Your task to perform on an android device: Go to notification settings Image 0: 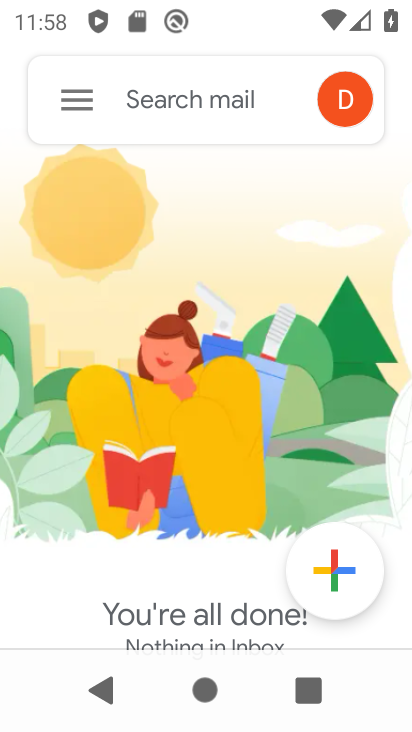
Step 0: click (77, 106)
Your task to perform on an android device: Go to notification settings Image 1: 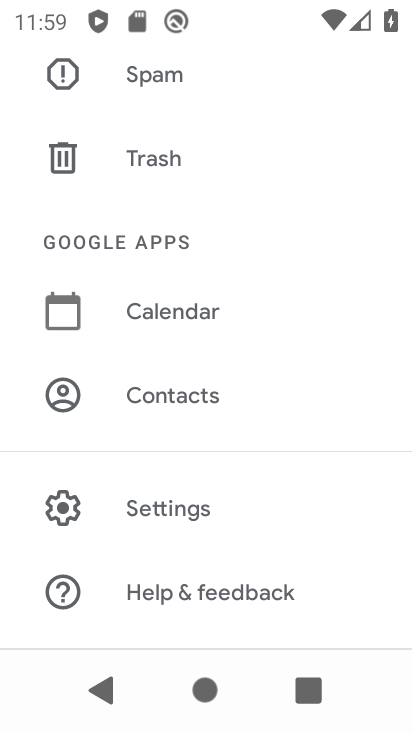
Step 1: press back button
Your task to perform on an android device: Go to notification settings Image 2: 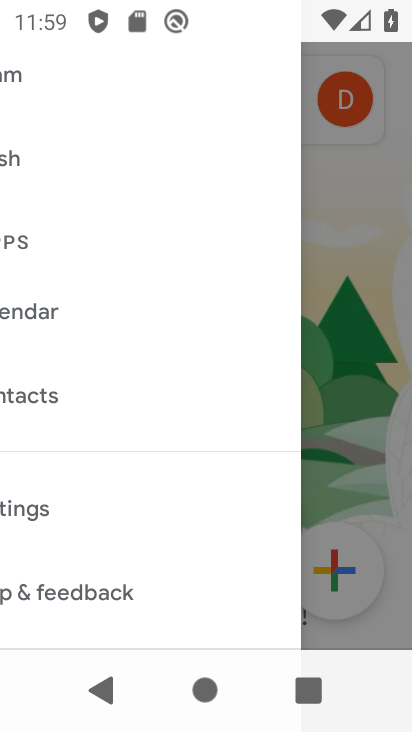
Step 2: press back button
Your task to perform on an android device: Go to notification settings Image 3: 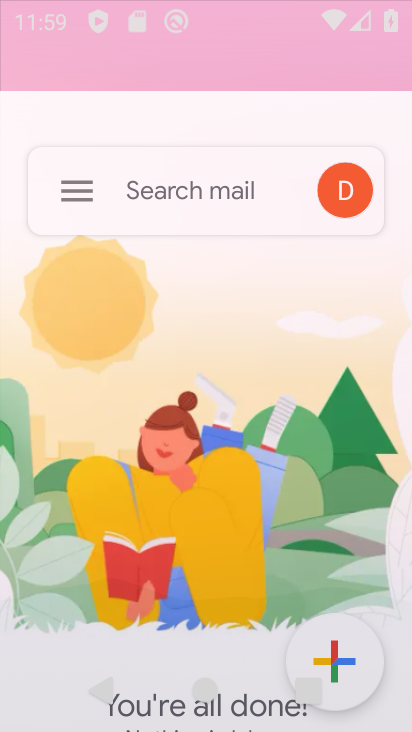
Step 3: press home button
Your task to perform on an android device: Go to notification settings Image 4: 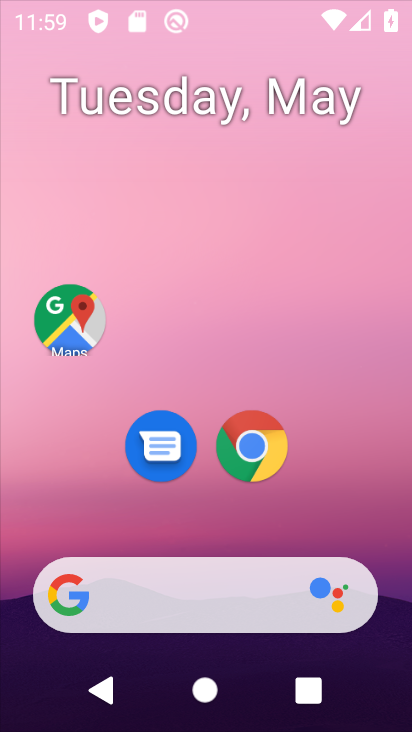
Step 4: press home button
Your task to perform on an android device: Go to notification settings Image 5: 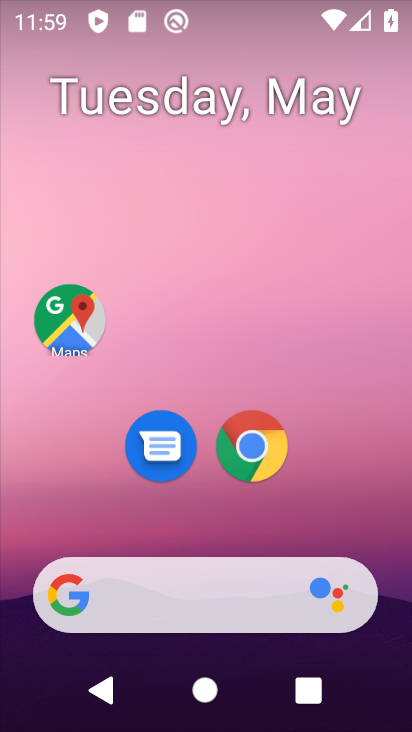
Step 5: drag from (272, 650) to (154, 143)
Your task to perform on an android device: Go to notification settings Image 6: 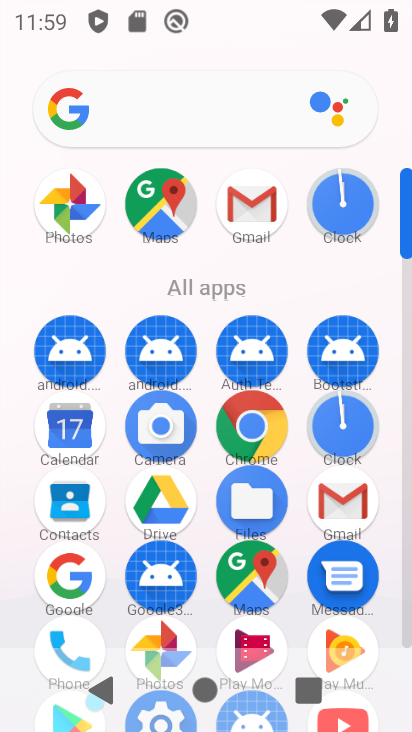
Step 6: drag from (259, 504) to (248, 125)
Your task to perform on an android device: Go to notification settings Image 7: 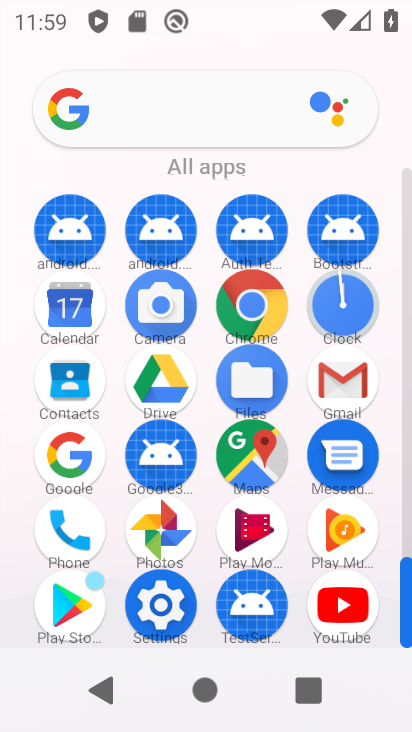
Step 7: drag from (291, 404) to (310, 57)
Your task to perform on an android device: Go to notification settings Image 8: 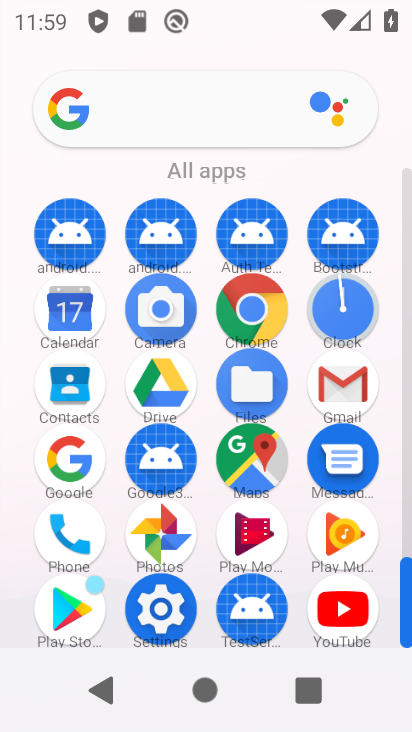
Step 8: click (157, 615)
Your task to perform on an android device: Go to notification settings Image 9: 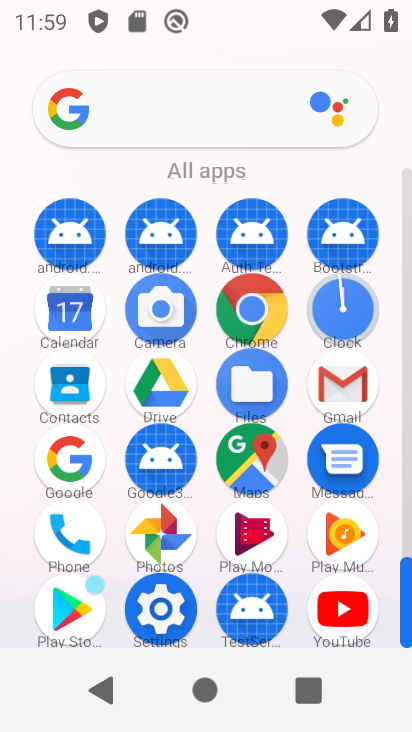
Step 9: click (162, 614)
Your task to perform on an android device: Go to notification settings Image 10: 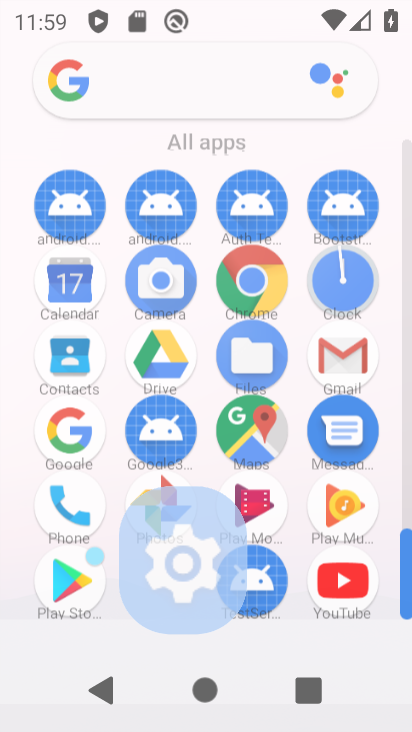
Step 10: click (169, 614)
Your task to perform on an android device: Go to notification settings Image 11: 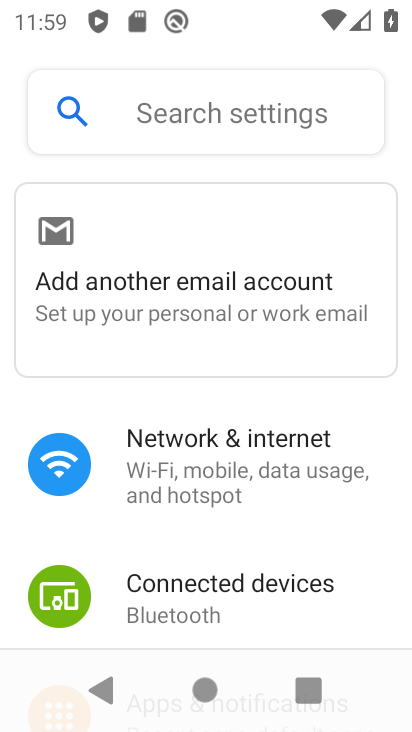
Step 11: drag from (243, 547) to (206, 68)
Your task to perform on an android device: Go to notification settings Image 12: 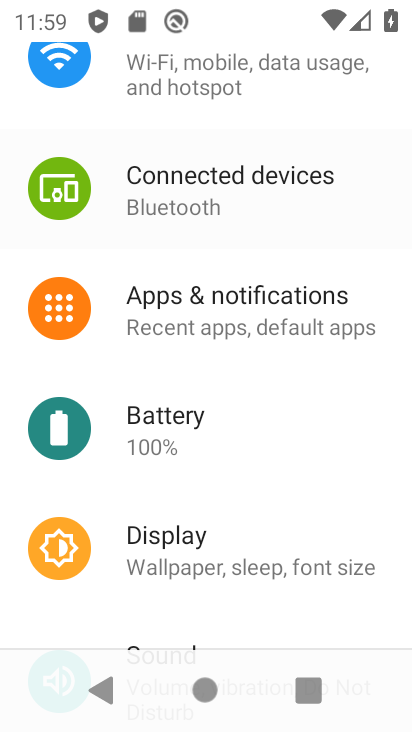
Step 12: drag from (251, 443) to (199, 118)
Your task to perform on an android device: Go to notification settings Image 13: 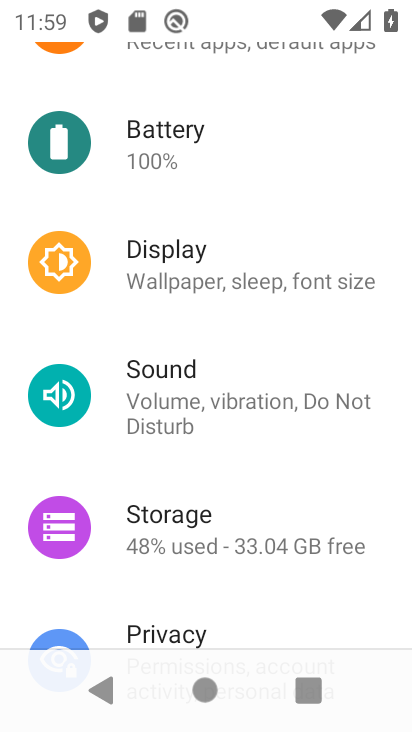
Step 13: drag from (197, 175) to (251, 435)
Your task to perform on an android device: Go to notification settings Image 14: 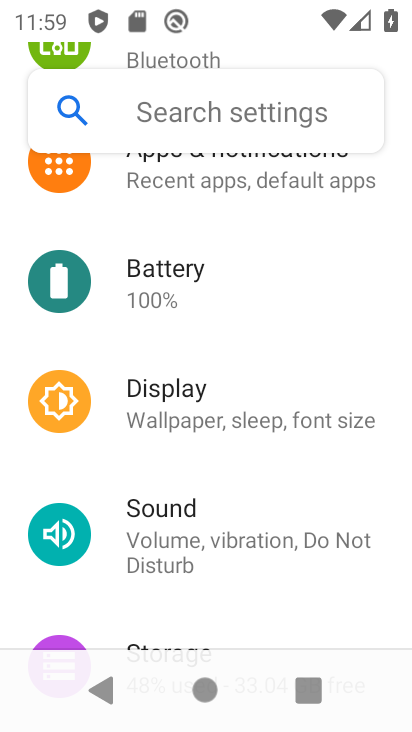
Step 14: drag from (216, 195) to (219, 446)
Your task to perform on an android device: Go to notification settings Image 15: 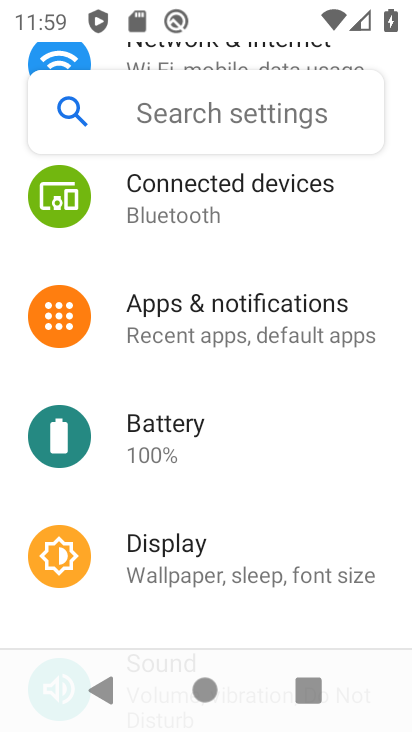
Step 15: click (230, 317)
Your task to perform on an android device: Go to notification settings Image 16: 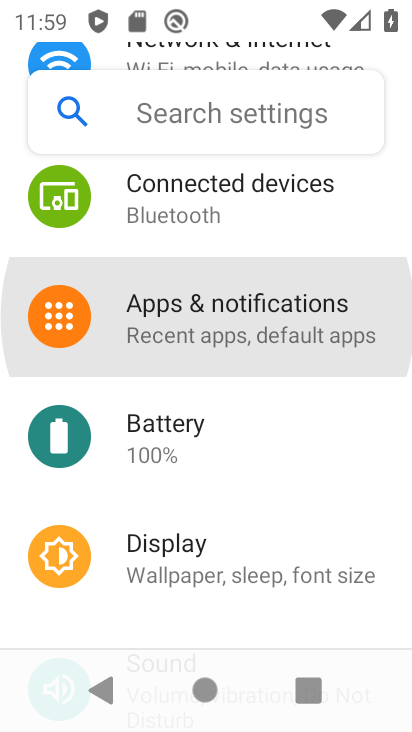
Step 16: click (230, 317)
Your task to perform on an android device: Go to notification settings Image 17: 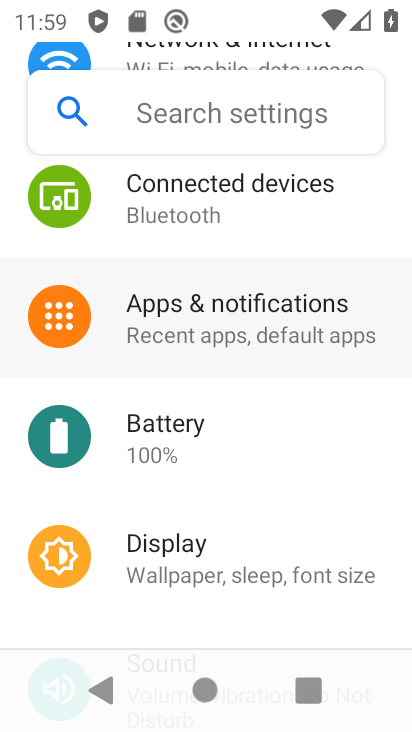
Step 17: click (230, 317)
Your task to perform on an android device: Go to notification settings Image 18: 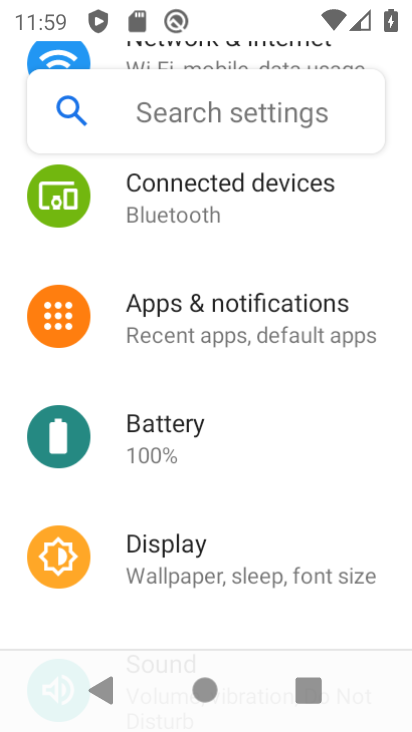
Step 18: click (230, 317)
Your task to perform on an android device: Go to notification settings Image 19: 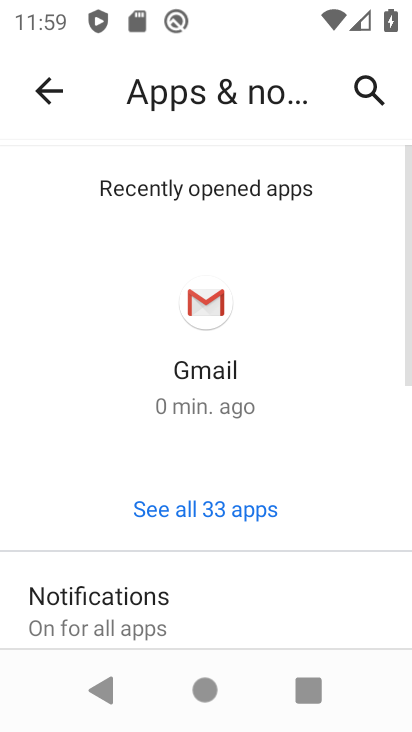
Step 19: task complete